Your task to perform on an android device: open a bookmark in the chrome app Image 0: 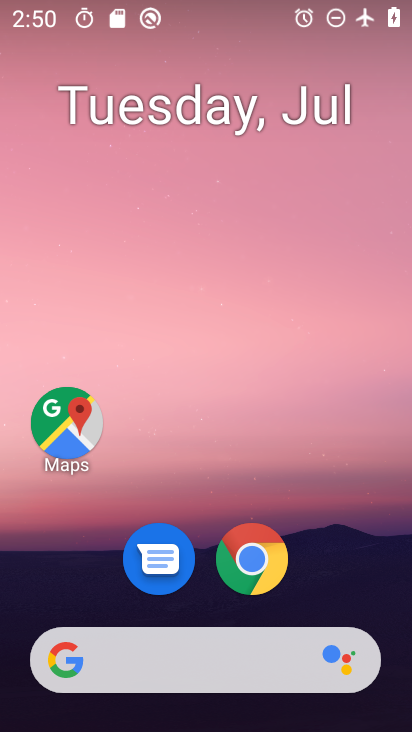
Step 0: press home button
Your task to perform on an android device: open a bookmark in the chrome app Image 1: 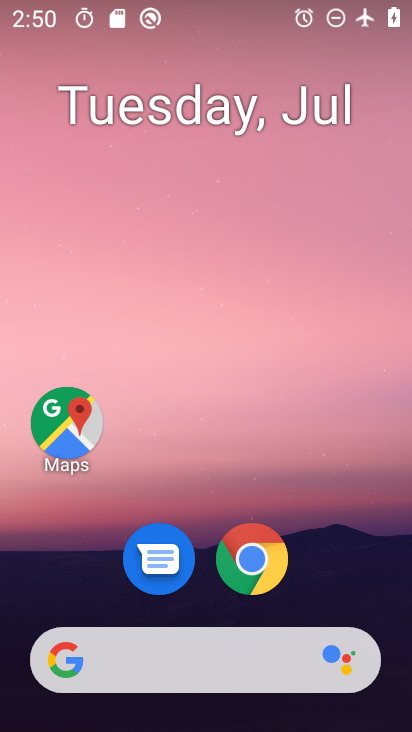
Step 1: drag from (360, 553) to (387, 83)
Your task to perform on an android device: open a bookmark in the chrome app Image 2: 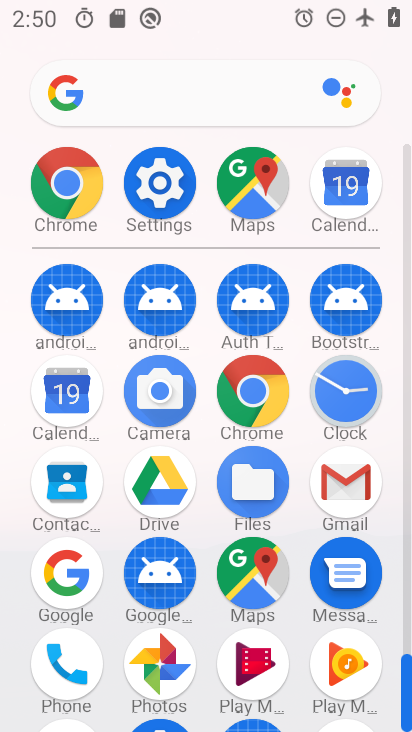
Step 2: click (261, 382)
Your task to perform on an android device: open a bookmark in the chrome app Image 3: 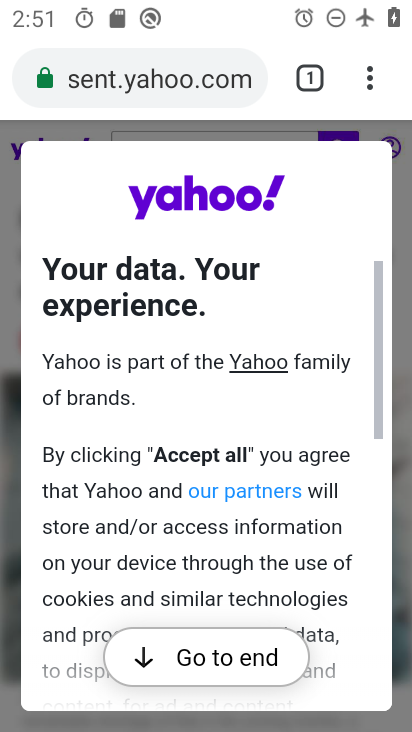
Step 3: click (372, 84)
Your task to perform on an android device: open a bookmark in the chrome app Image 4: 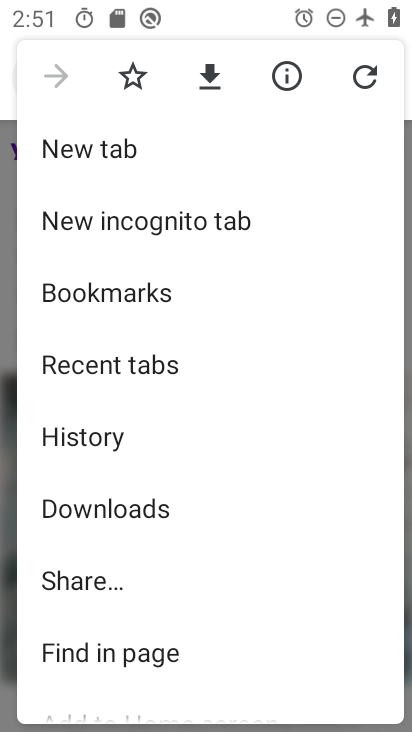
Step 4: click (214, 297)
Your task to perform on an android device: open a bookmark in the chrome app Image 5: 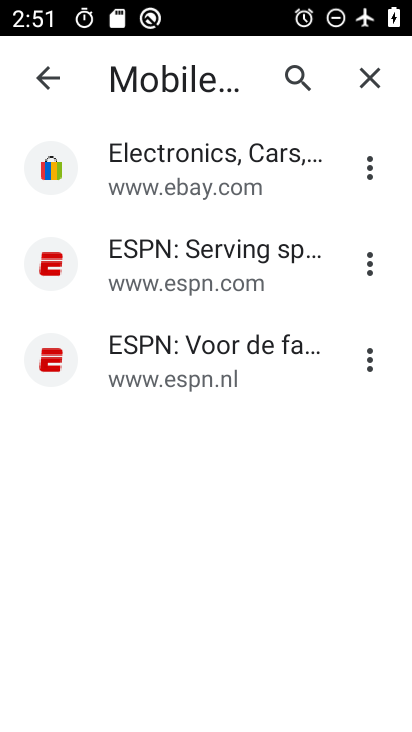
Step 5: click (228, 260)
Your task to perform on an android device: open a bookmark in the chrome app Image 6: 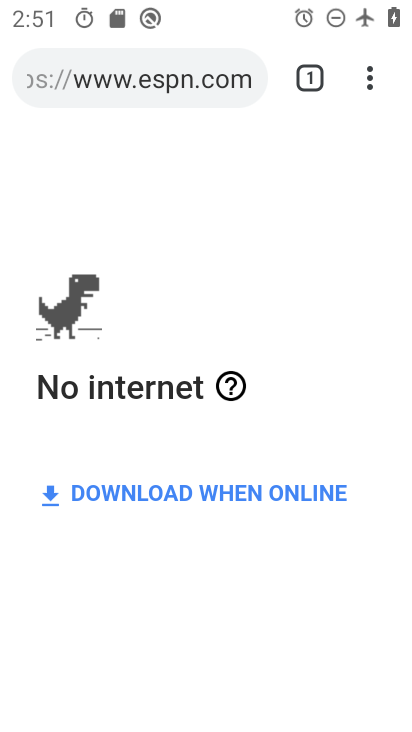
Step 6: task complete